Your task to perform on an android device: turn on translation in the chrome app Image 0: 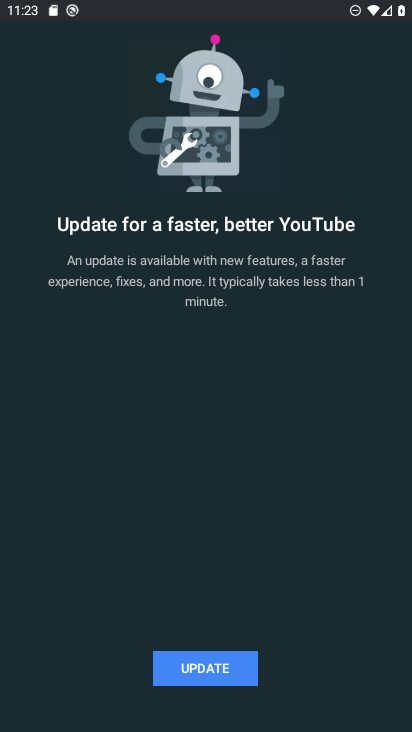
Step 0: press home button
Your task to perform on an android device: turn on translation in the chrome app Image 1: 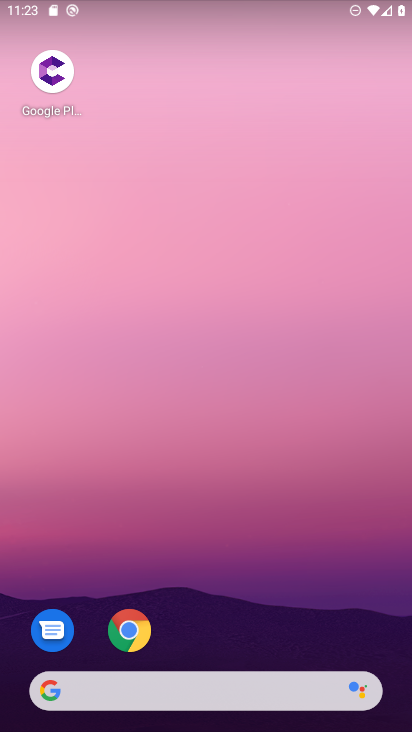
Step 1: drag from (213, 625) to (277, 118)
Your task to perform on an android device: turn on translation in the chrome app Image 2: 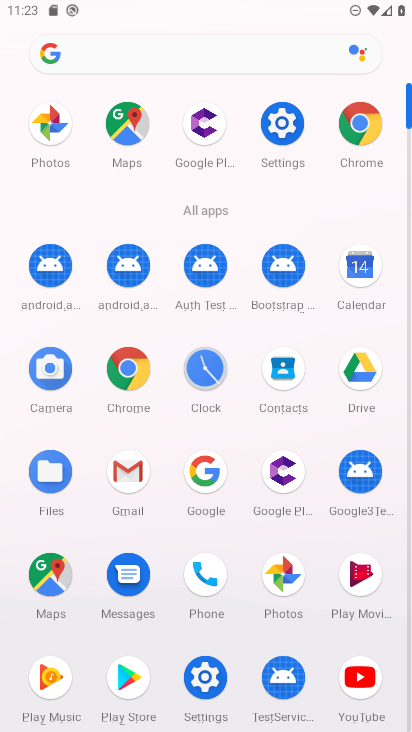
Step 2: click (126, 381)
Your task to perform on an android device: turn on translation in the chrome app Image 3: 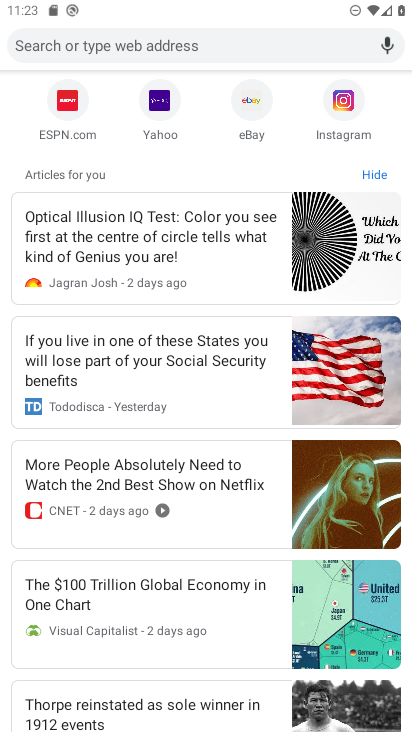
Step 3: drag from (188, 184) to (226, 611)
Your task to perform on an android device: turn on translation in the chrome app Image 4: 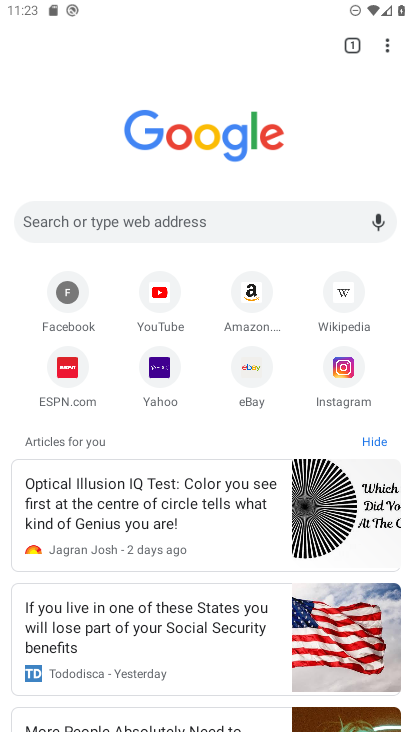
Step 4: drag from (392, 48) to (233, 373)
Your task to perform on an android device: turn on translation in the chrome app Image 5: 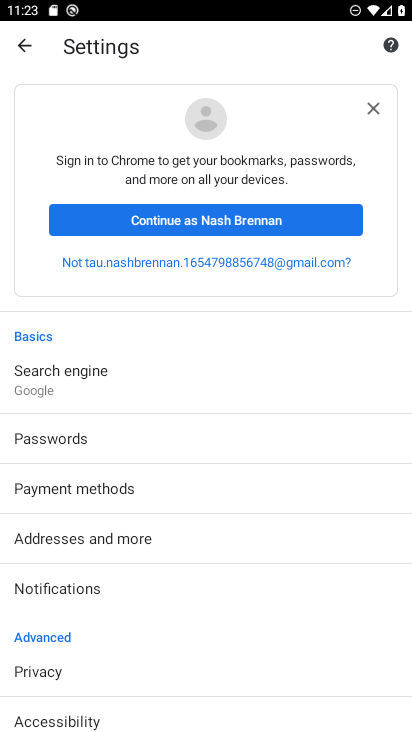
Step 5: drag from (148, 535) to (274, 216)
Your task to perform on an android device: turn on translation in the chrome app Image 6: 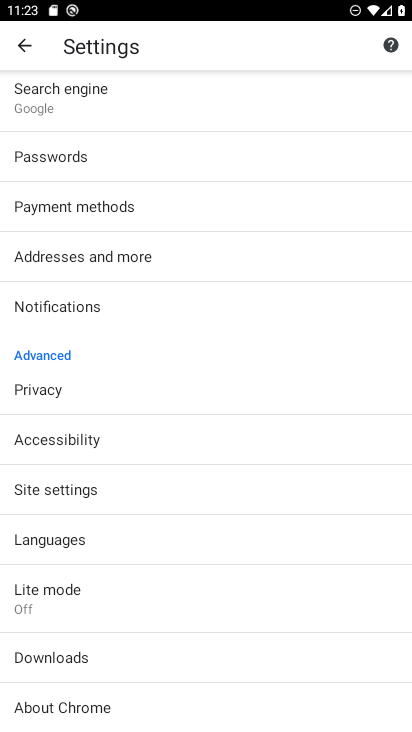
Step 6: click (51, 533)
Your task to perform on an android device: turn on translation in the chrome app Image 7: 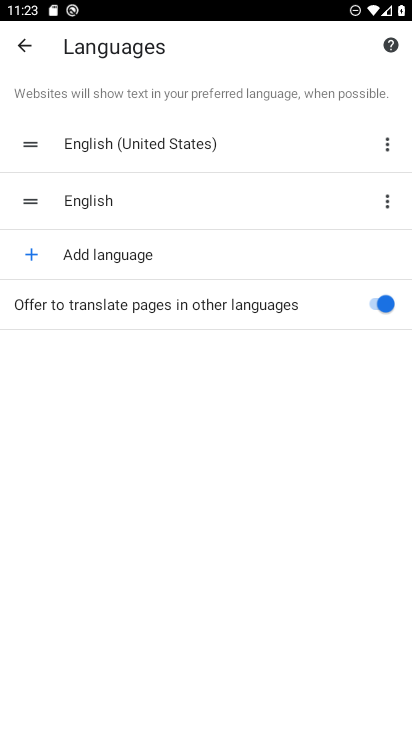
Step 7: task complete